Your task to perform on an android device: Go to Google maps Image 0: 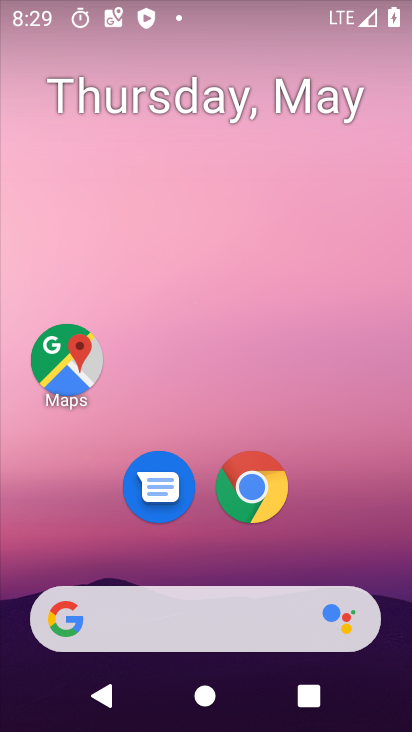
Step 0: drag from (202, 566) to (183, 205)
Your task to perform on an android device: Go to Google maps Image 1: 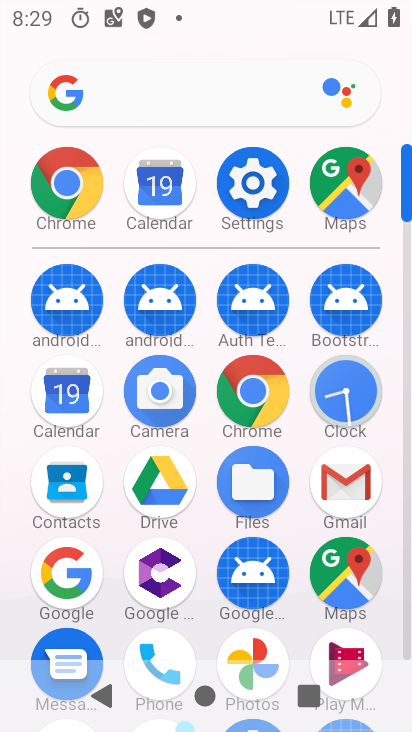
Step 1: click (345, 577)
Your task to perform on an android device: Go to Google maps Image 2: 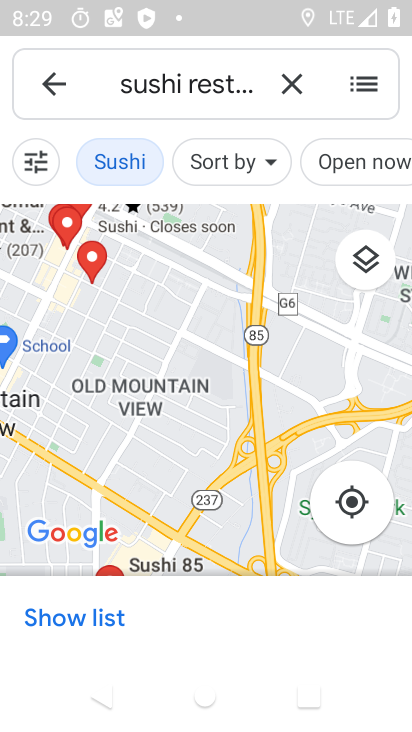
Step 2: click (49, 84)
Your task to perform on an android device: Go to Google maps Image 3: 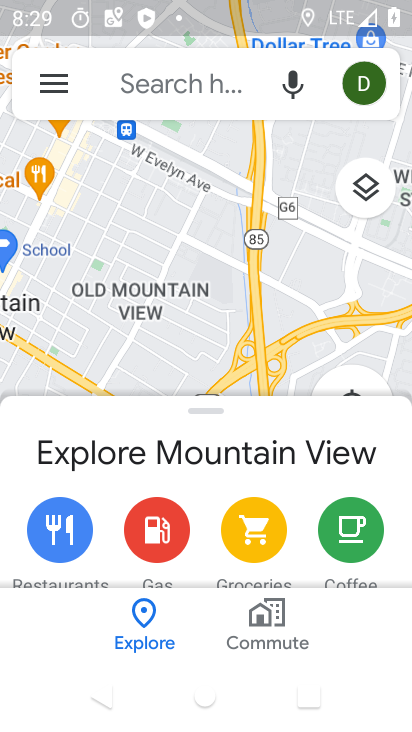
Step 3: task complete